Your task to perform on an android device: open sync settings in chrome Image 0: 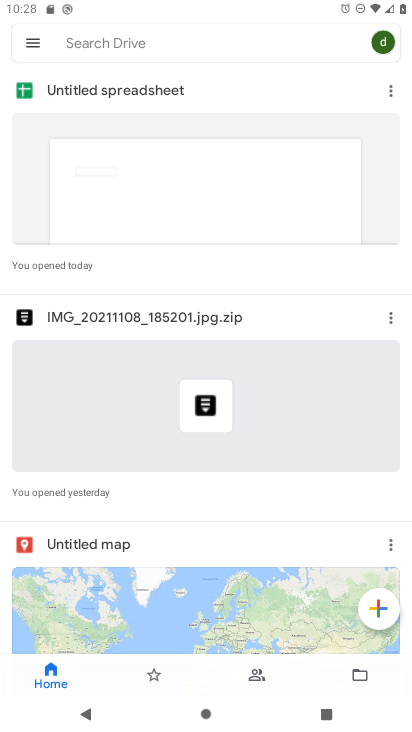
Step 0: press home button
Your task to perform on an android device: open sync settings in chrome Image 1: 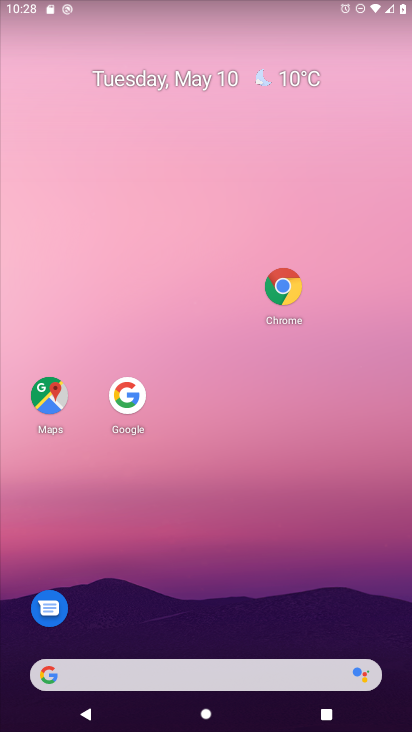
Step 1: drag from (174, 679) to (341, 111)
Your task to perform on an android device: open sync settings in chrome Image 2: 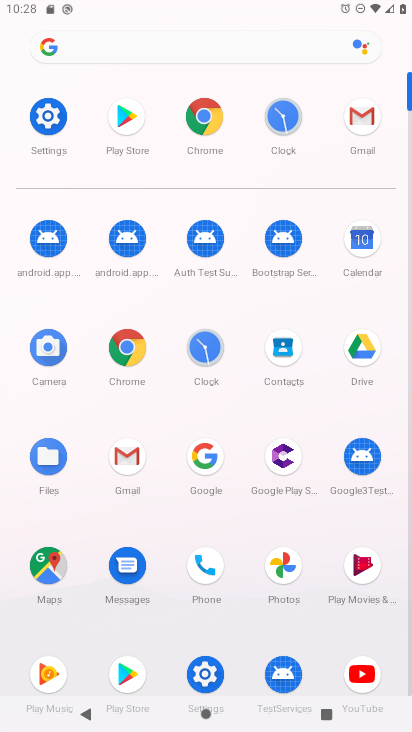
Step 2: click (200, 117)
Your task to perform on an android device: open sync settings in chrome Image 3: 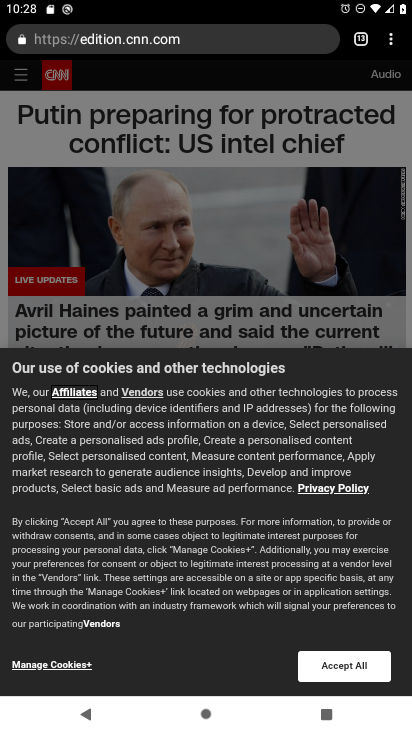
Step 3: drag from (394, 45) to (255, 441)
Your task to perform on an android device: open sync settings in chrome Image 4: 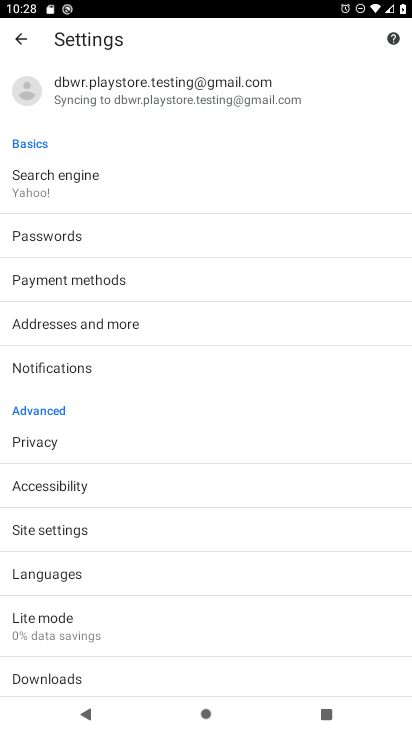
Step 4: click (208, 99)
Your task to perform on an android device: open sync settings in chrome Image 5: 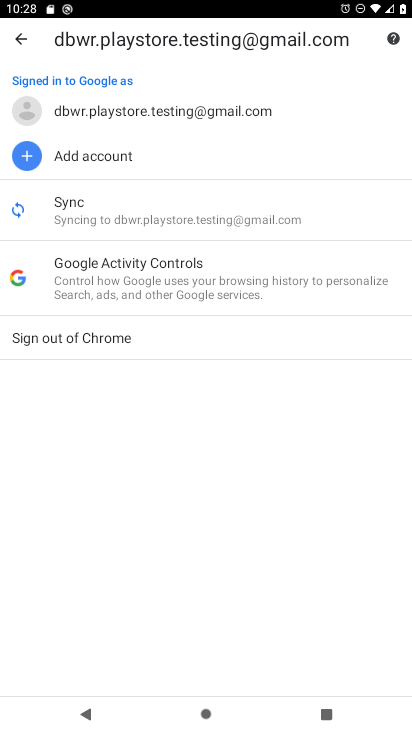
Step 5: click (143, 208)
Your task to perform on an android device: open sync settings in chrome Image 6: 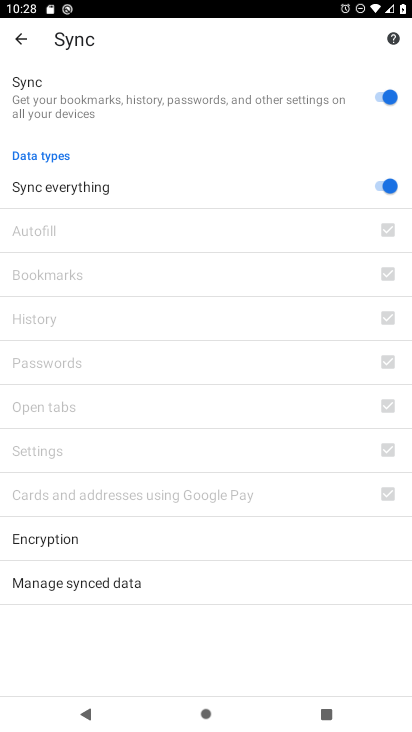
Step 6: task complete